Your task to perform on an android device: Go to internet settings Image 0: 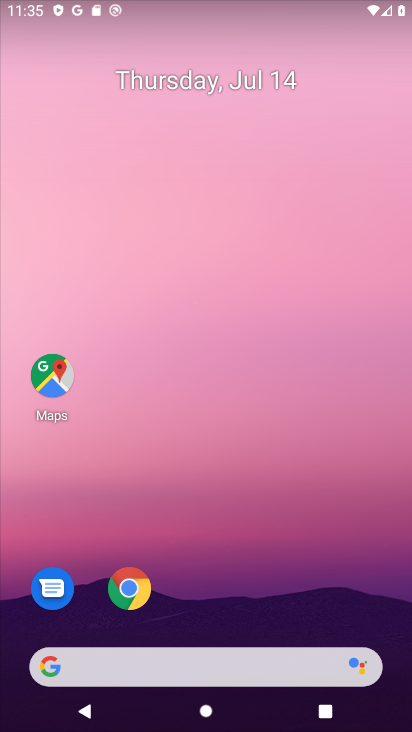
Step 0: drag from (245, 625) to (210, 42)
Your task to perform on an android device: Go to internet settings Image 1: 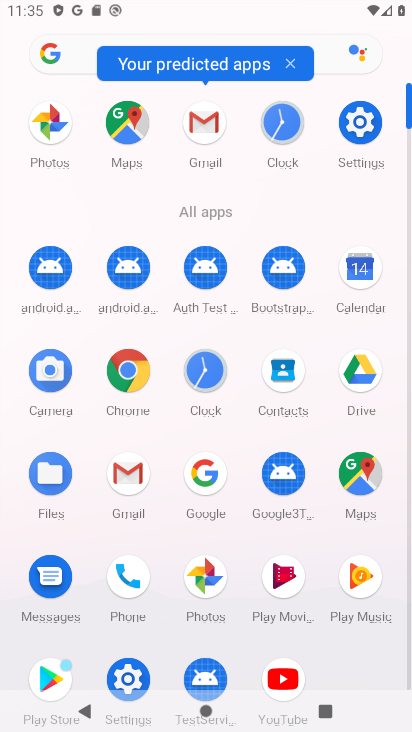
Step 1: click (359, 128)
Your task to perform on an android device: Go to internet settings Image 2: 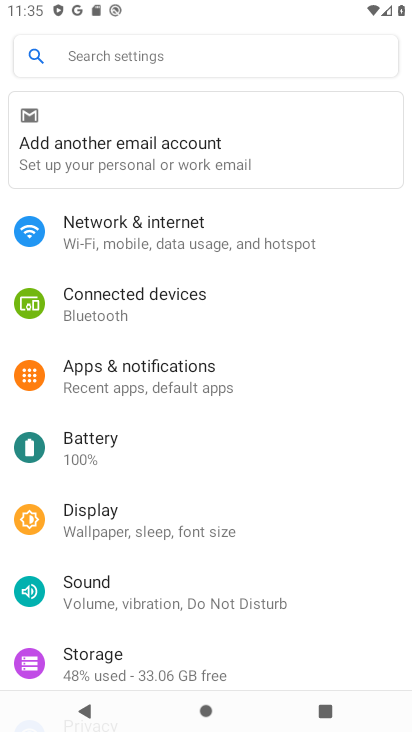
Step 2: click (199, 253)
Your task to perform on an android device: Go to internet settings Image 3: 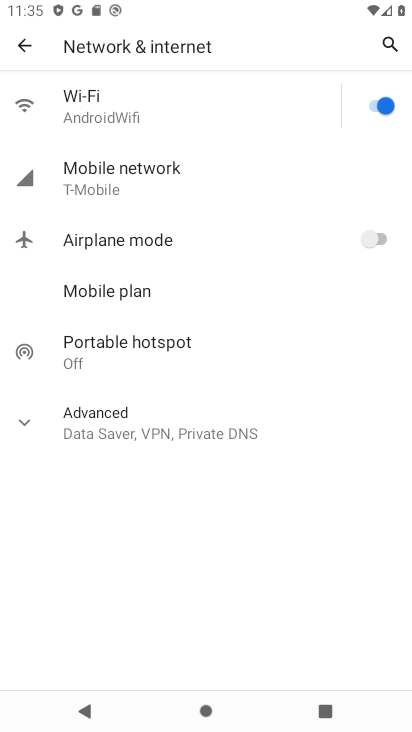
Step 3: task complete